Your task to perform on an android device: Open wifi settings Image 0: 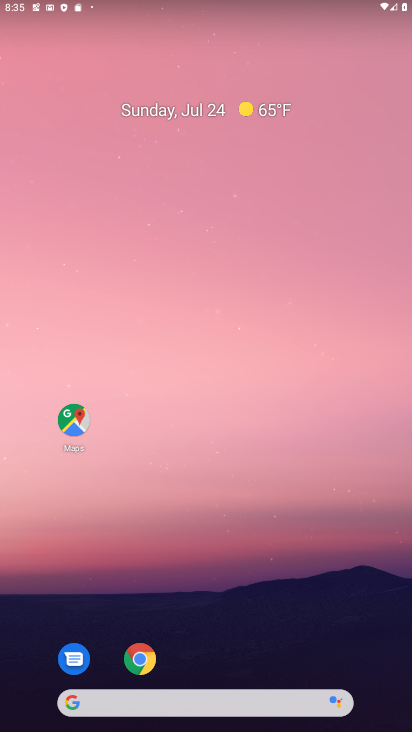
Step 0: drag from (286, 670) to (267, 3)
Your task to perform on an android device: Open wifi settings Image 1: 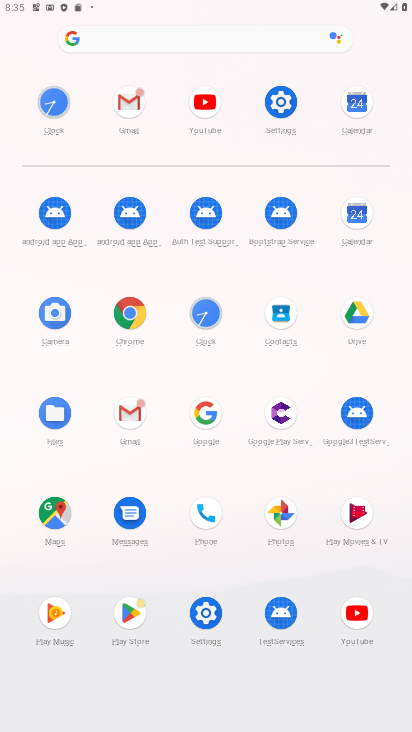
Step 1: click (279, 106)
Your task to perform on an android device: Open wifi settings Image 2: 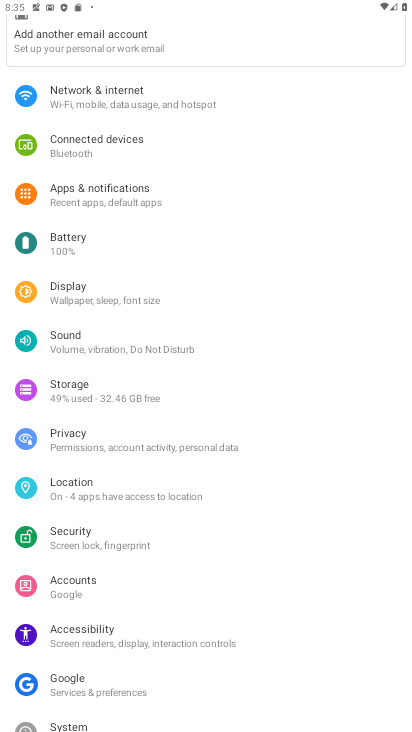
Step 2: click (94, 101)
Your task to perform on an android device: Open wifi settings Image 3: 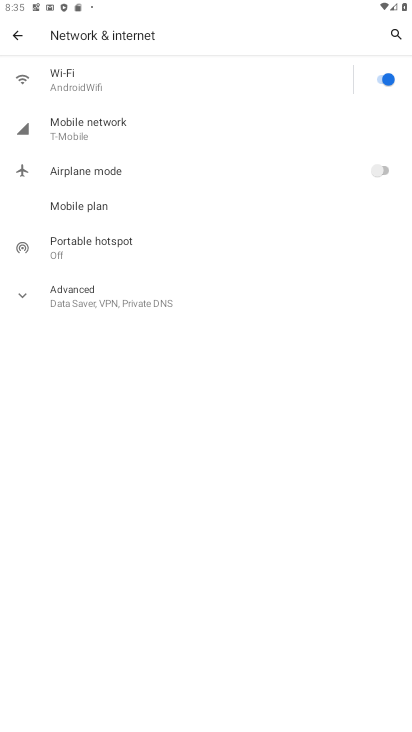
Step 3: click (55, 75)
Your task to perform on an android device: Open wifi settings Image 4: 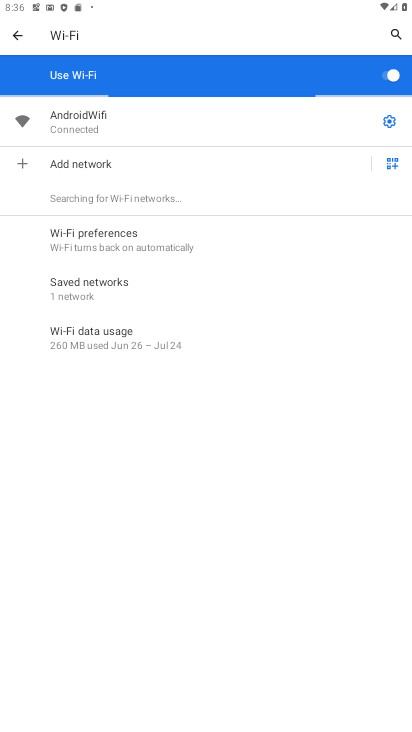
Step 4: click (384, 127)
Your task to perform on an android device: Open wifi settings Image 5: 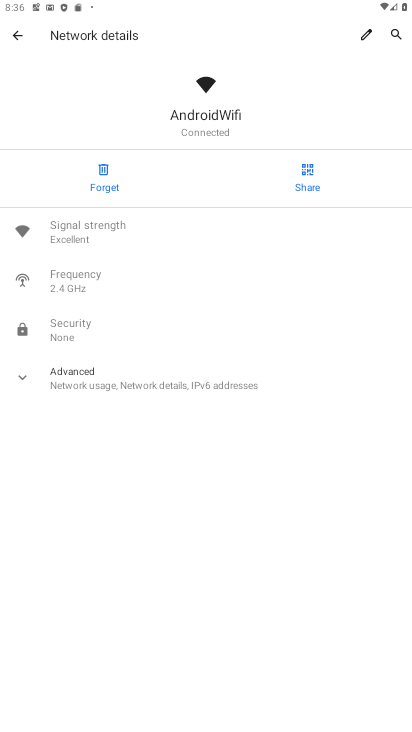
Step 5: task complete